Your task to perform on an android device: When is my next meeting? Image 0: 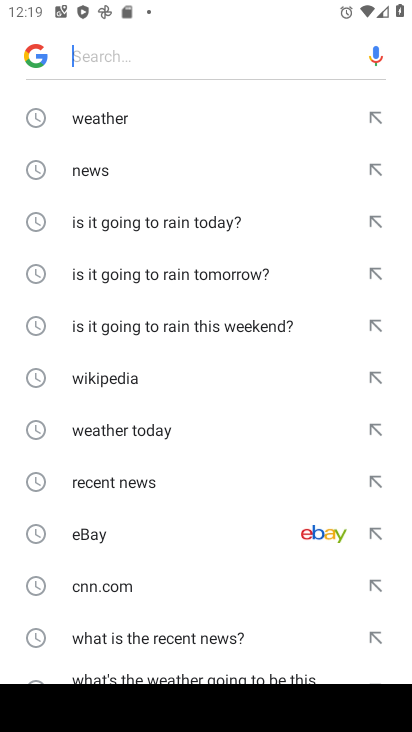
Step 0: press home button
Your task to perform on an android device: When is my next meeting? Image 1: 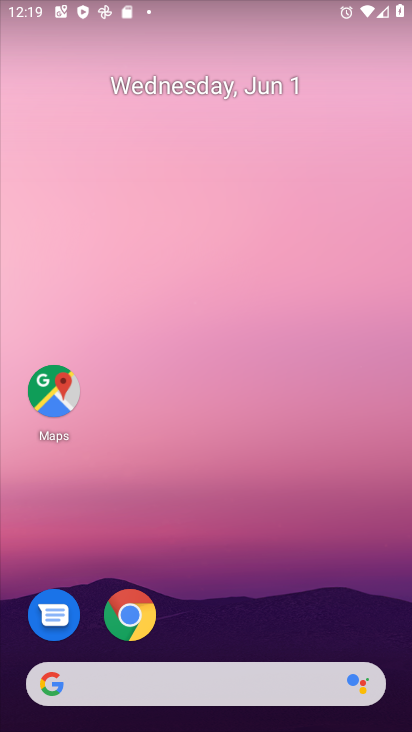
Step 1: drag from (298, 488) to (335, 48)
Your task to perform on an android device: When is my next meeting? Image 2: 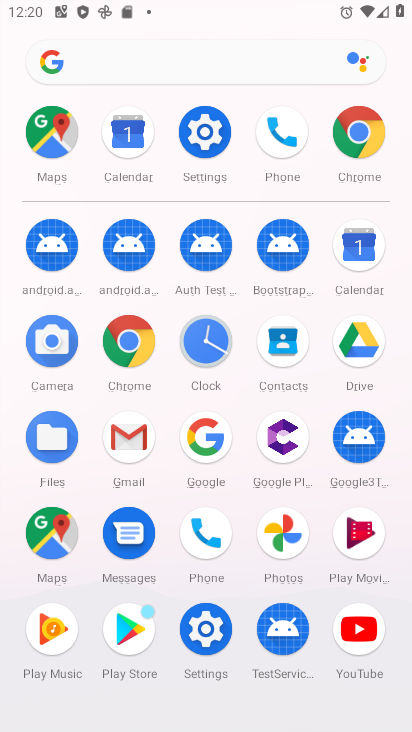
Step 2: click (370, 244)
Your task to perform on an android device: When is my next meeting? Image 3: 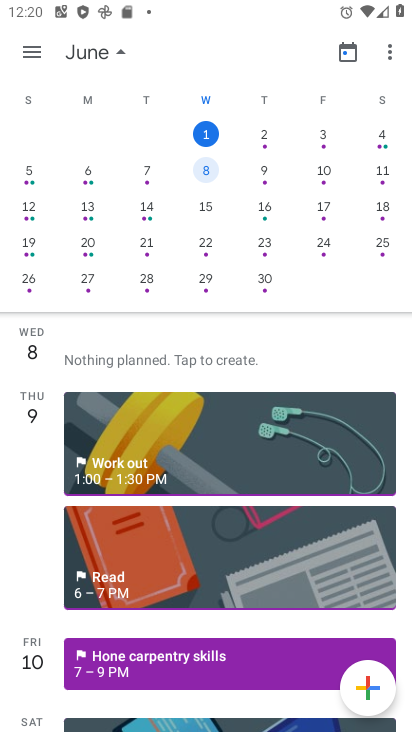
Step 3: click (261, 150)
Your task to perform on an android device: When is my next meeting? Image 4: 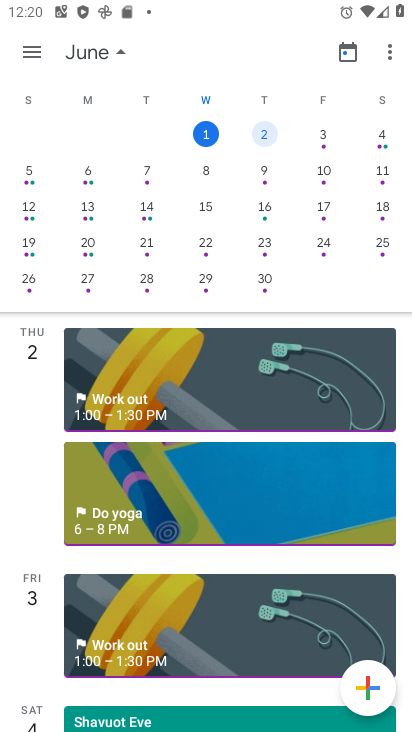
Step 4: task complete